Your task to perform on an android device: Is it going to rain today? Image 0: 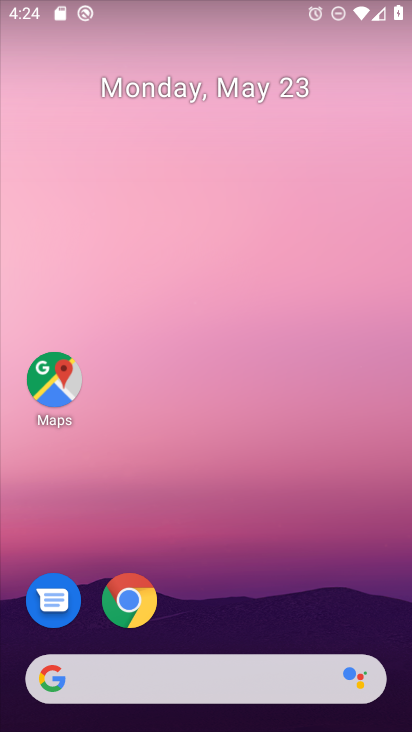
Step 0: click (114, 679)
Your task to perform on an android device: Is it going to rain today? Image 1: 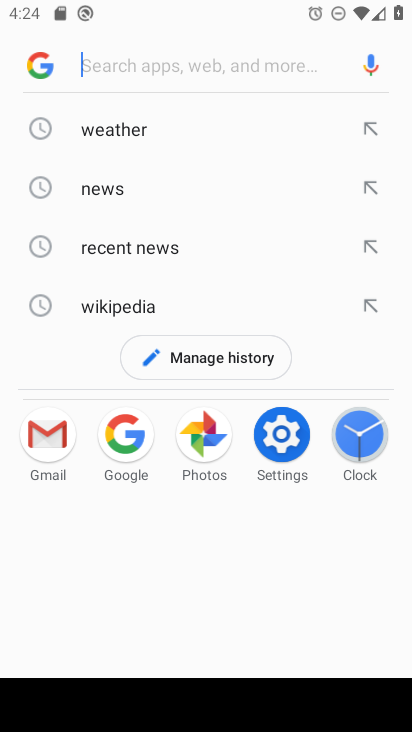
Step 1: click (114, 130)
Your task to perform on an android device: Is it going to rain today? Image 2: 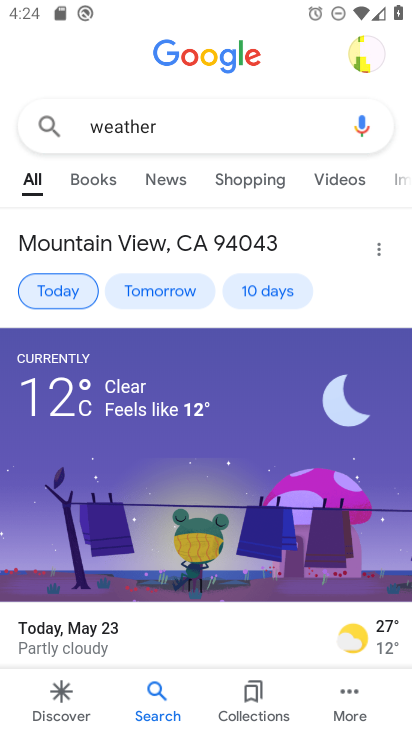
Step 2: task complete